Your task to perform on an android device: Toggle the flashlight Image 0: 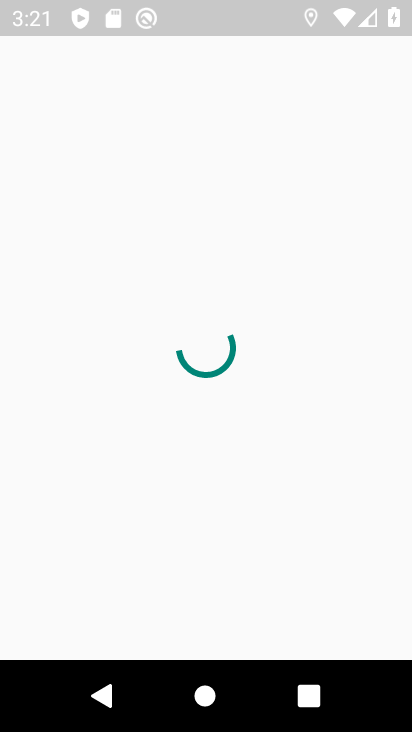
Step 0: press home button
Your task to perform on an android device: Toggle the flashlight Image 1: 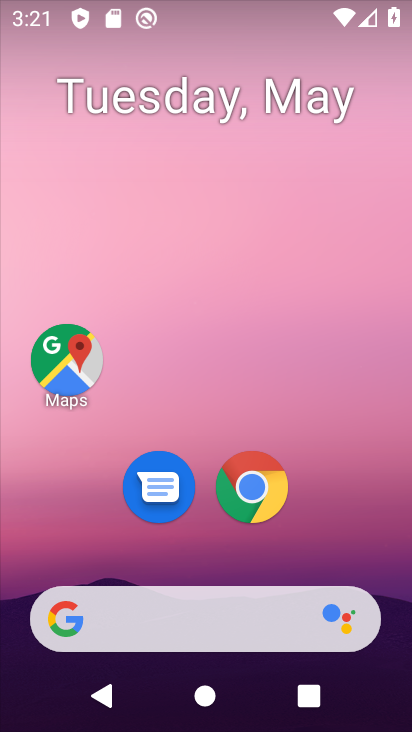
Step 1: drag from (206, 540) to (240, 71)
Your task to perform on an android device: Toggle the flashlight Image 2: 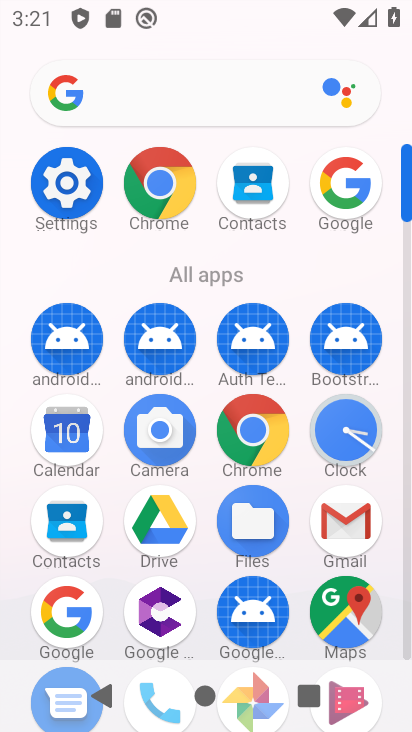
Step 2: click (62, 176)
Your task to perform on an android device: Toggle the flashlight Image 3: 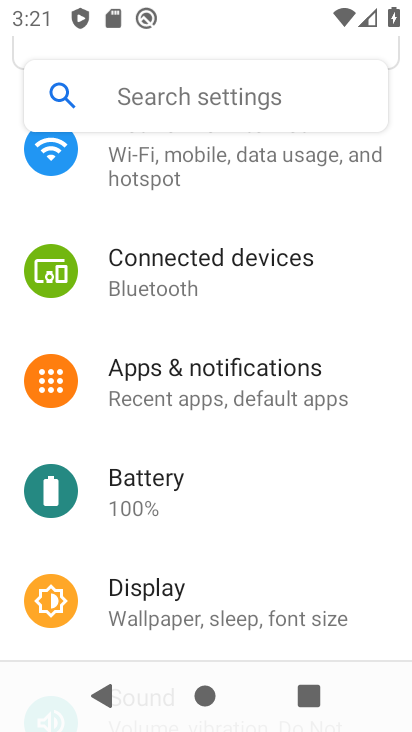
Step 3: click (175, 77)
Your task to perform on an android device: Toggle the flashlight Image 4: 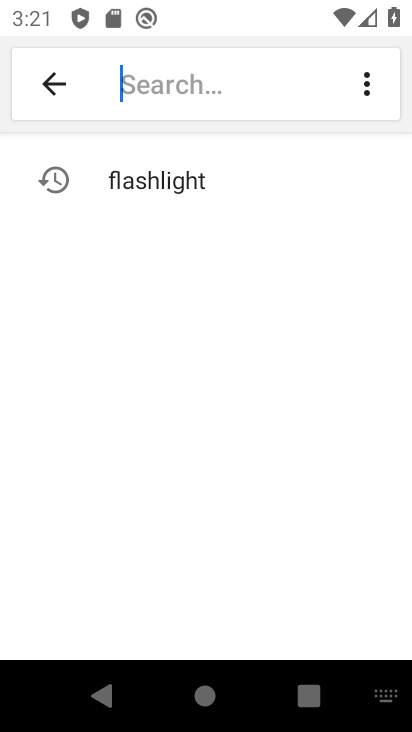
Step 4: click (216, 181)
Your task to perform on an android device: Toggle the flashlight Image 5: 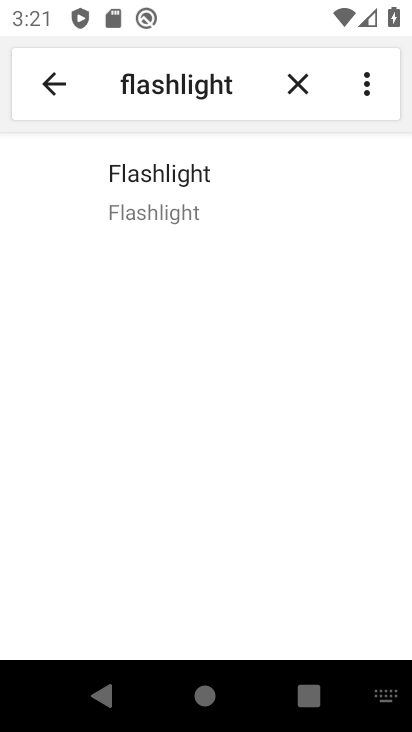
Step 5: click (190, 191)
Your task to perform on an android device: Toggle the flashlight Image 6: 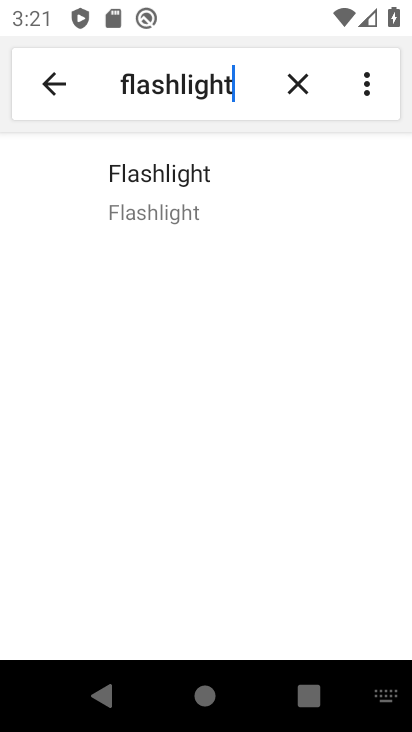
Step 6: task complete